Your task to perform on an android device: remove spam from my inbox in the gmail app Image 0: 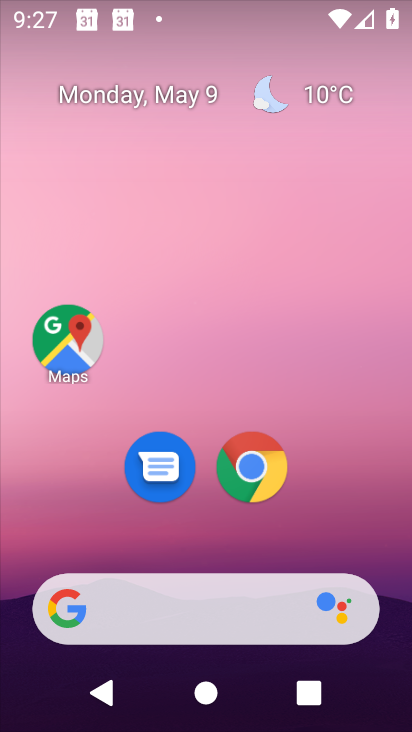
Step 0: drag from (368, 562) to (324, 19)
Your task to perform on an android device: remove spam from my inbox in the gmail app Image 1: 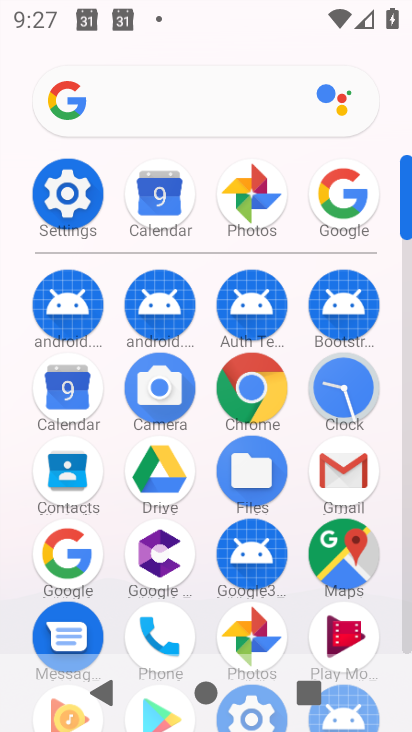
Step 1: click (340, 471)
Your task to perform on an android device: remove spam from my inbox in the gmail app Image 2: 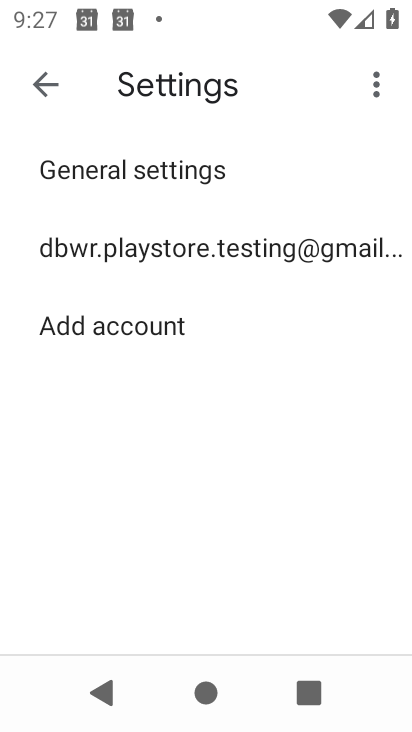
Step 2: click (58, 92)
Your task to perform on an android device: remove spam from my inbox in the gmail app Image 3: 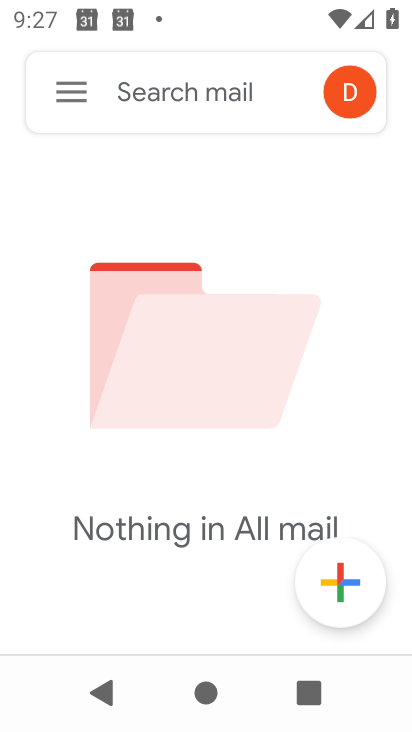
Step 3: click (66, 92)
Your task to perform on an android device: remove spam from my inbox in the gmail app Image 4: 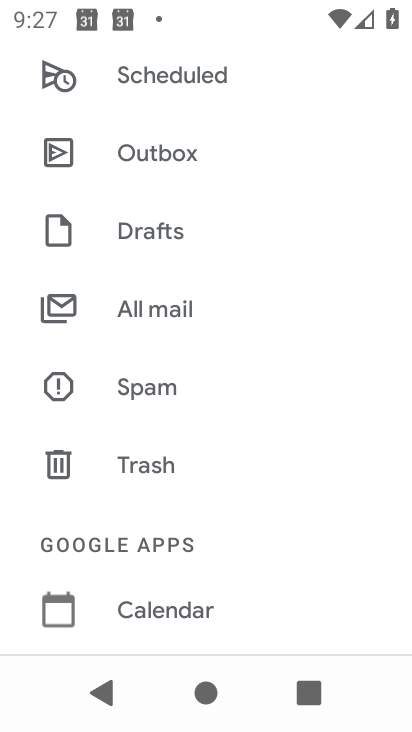
Step 4: click (144, 392)
Your task to perform on an android device: remove spam from my inbox in the gmail app Image 5: 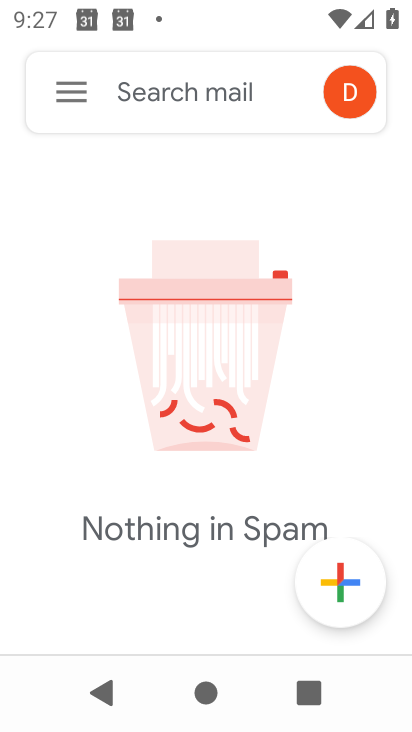
Step 5: task complete